Your task to perform on an android device: open sync settings in chrome Image 0: 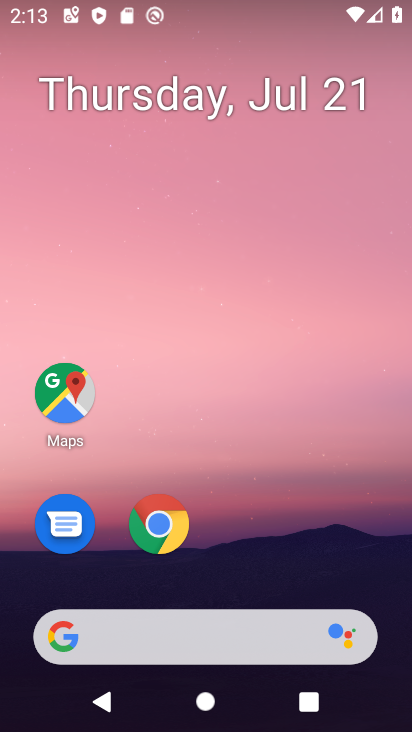
Step 0: drag from (256, 531) to (248, 137)
Your task to perform on an android device: open sync settings in chrome Image 1: 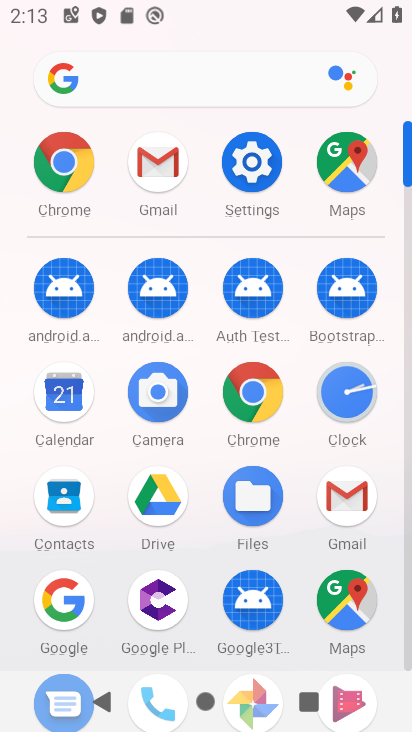
Step 1: click (62, 172)
Your task to perform on an android device: open sync settings in chrome Image 2: 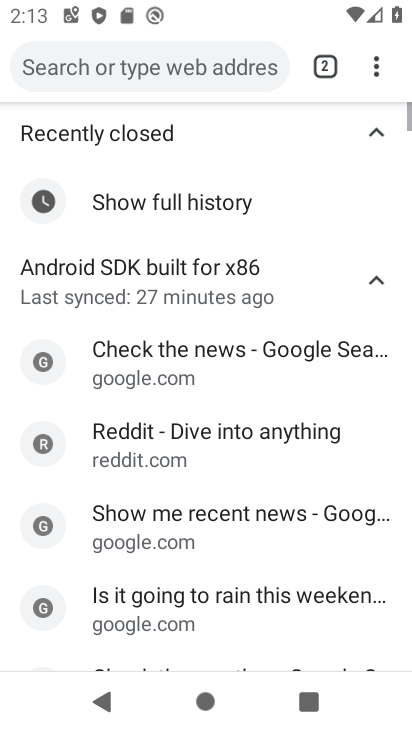
Step 2: click (375, 69)
Your task to perform on an android device: open sync settings in chrome Image 3: 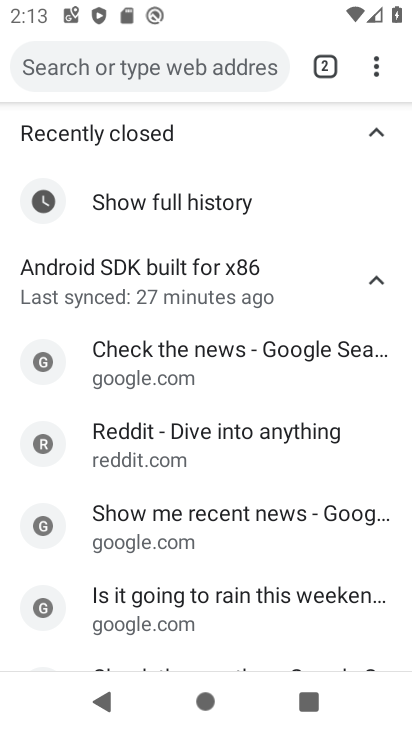
Step 3: click (375, 72)
Your task to perform on an android device: open sync settings in chrome Image 4: 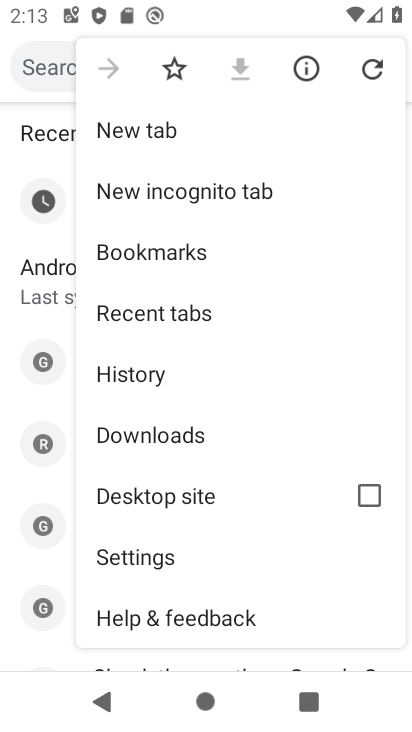
Step 4: click (168, 549)
Your task to perform on an android device: open sync settings in chrome Image 5: 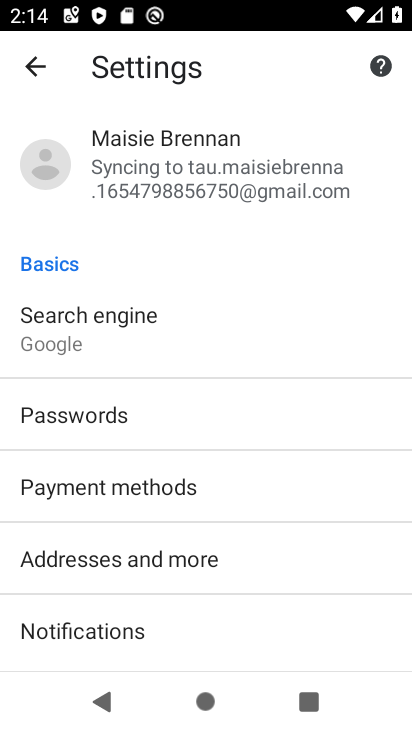
Step 5: click (261, 165)
Your task to perform on an android device: open sync settings in chrome Image 6: 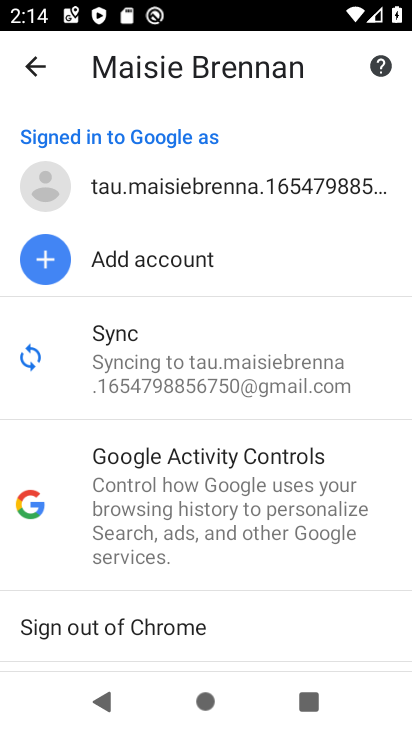
Step 6: click (217, 368)
Your task to perform on an android device: open sync settings in chrome Image 7: 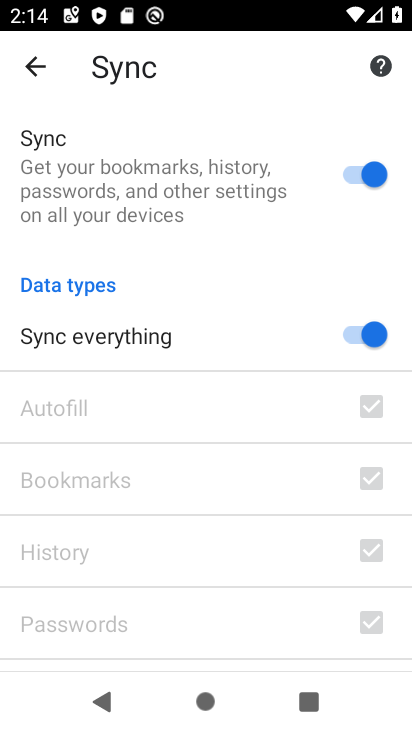
Step 7: task complete